Your task to perform on an android device: Go to Amazon Image 0: 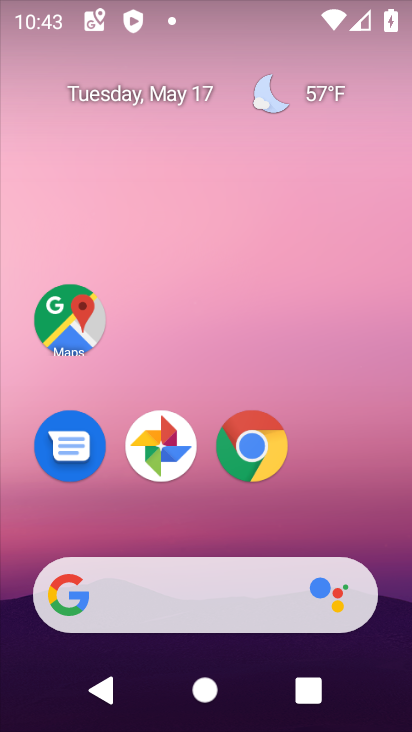
Step 0: click (243, 440)
Your task to perform on an android device: Go to Amazon Image 1: 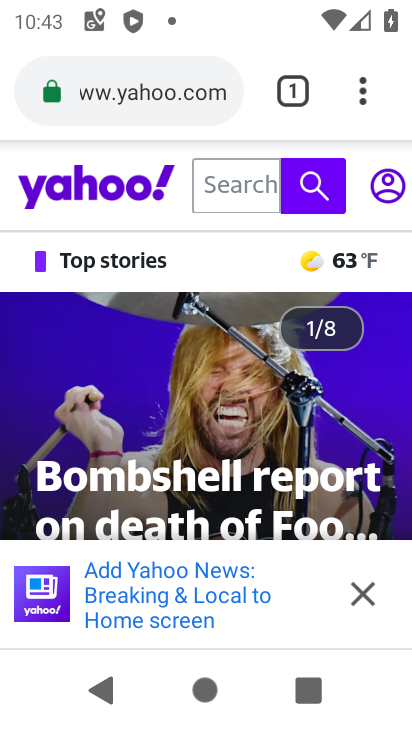
Step 1: click (161, 83)
Your task to perform on an android device: Go to Amazon Image 2: 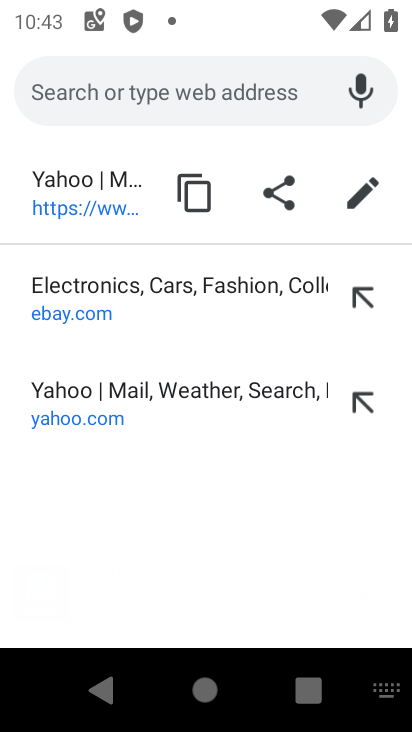
Step 2: type "amazon"
Your task to perform on an android device: Go to Amazon Image 3: 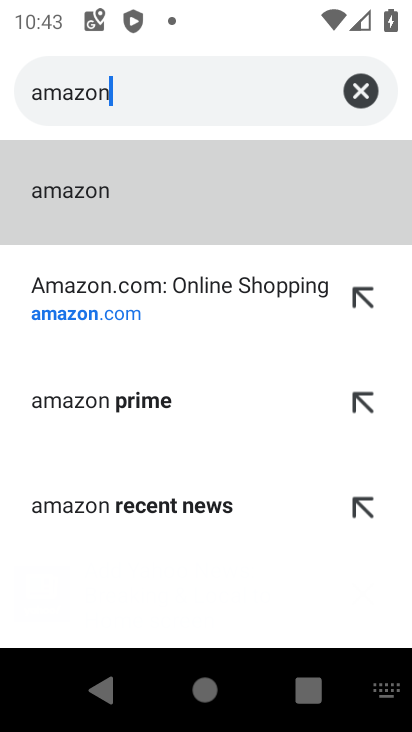
Step 3: click (162, 230)
Your task to perform on an android device: Go to Amazon Image 4: 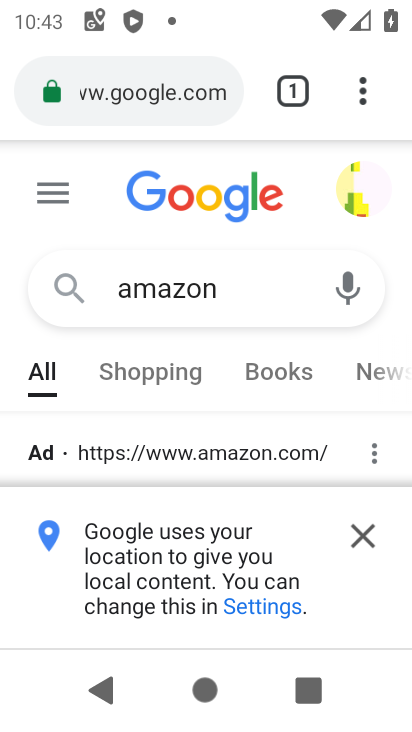
Step 4: click (356, 525)
Your task to perform on an android device: Go to Amazon Image 5: 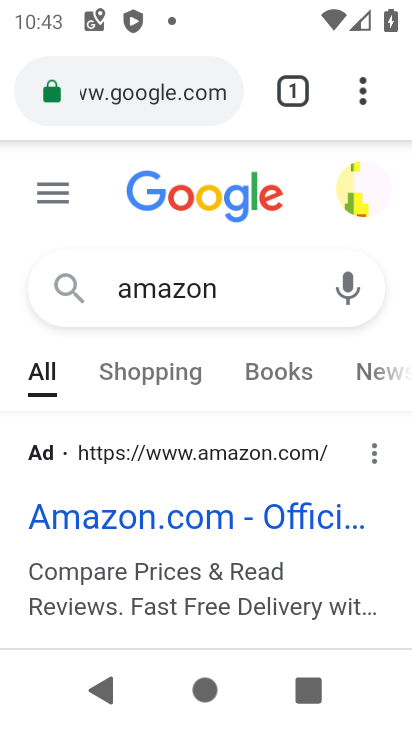
Step 5: click (233, 538)
Your task to perform on an android device: Go to Amazon Image 6: 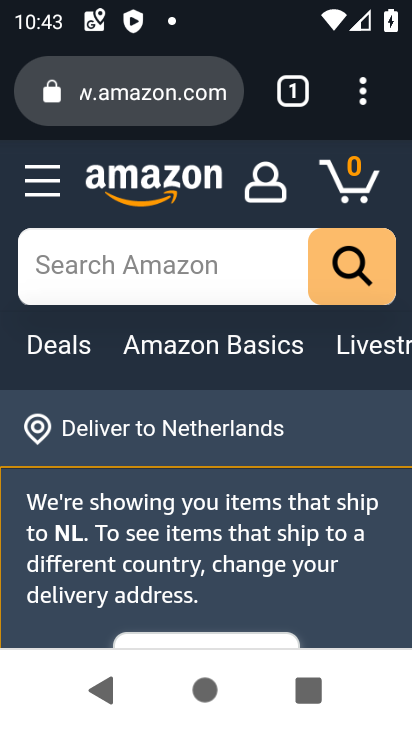
Step 6: task complete